Your task to perform on an android device: Check the news Image 0: 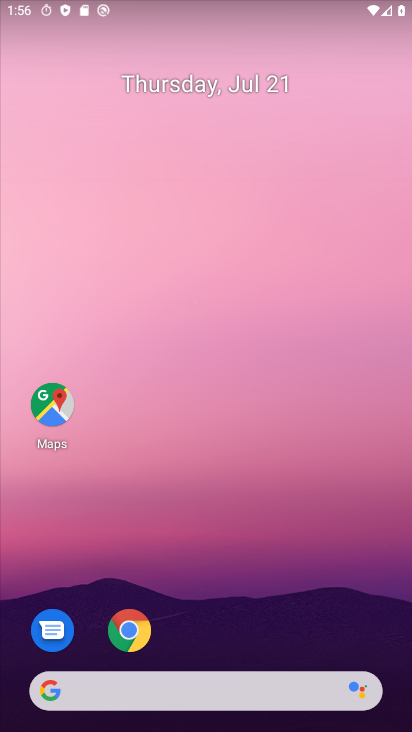
Step 0: click (169, 686)
Your task to perform on an android device: Check the news Image 1: 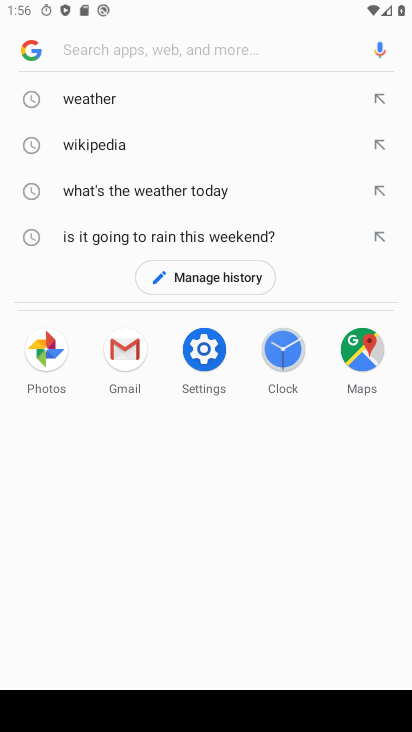
Step 1: click (27, 35)
Your task to perform on an android device: Check the news Image 2: 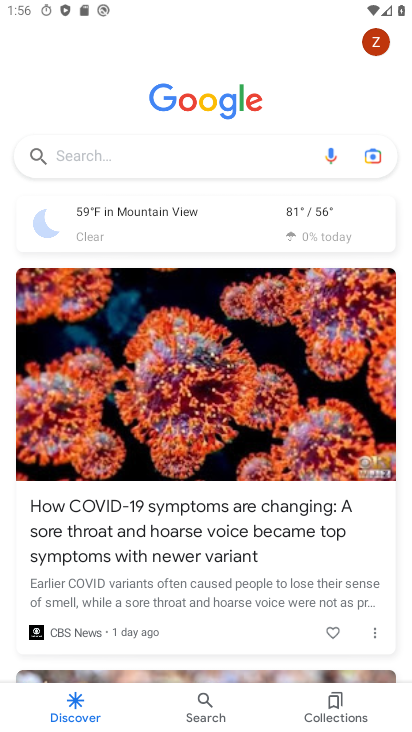
Step 2: task complete